Your task to perform on an android device: turn off translation in the chrome app Image 0: 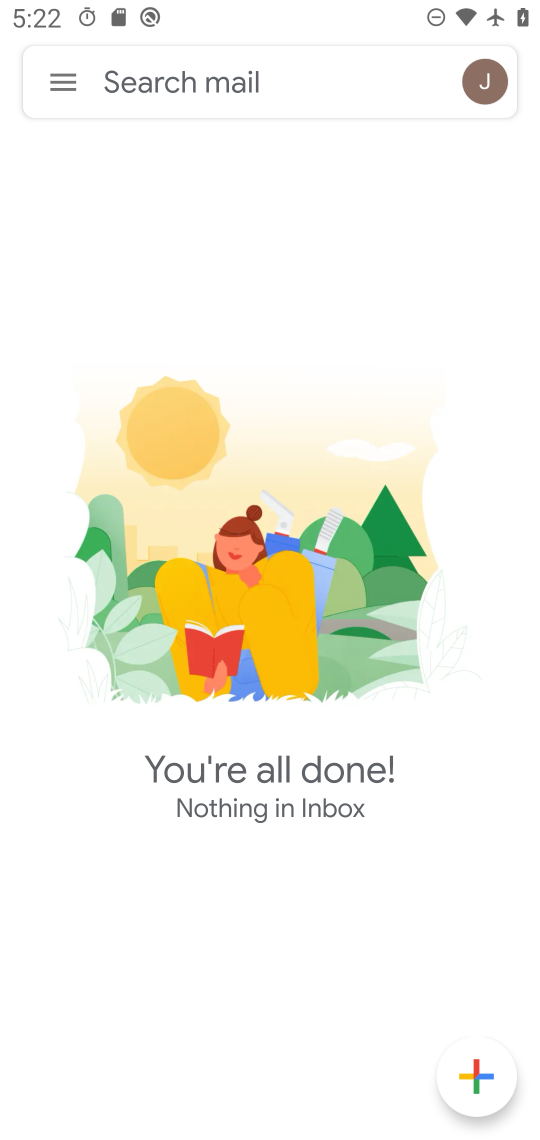
Step 0: press home button
Your task to perform on an android device: turn off translation in the chrome app Image 1: 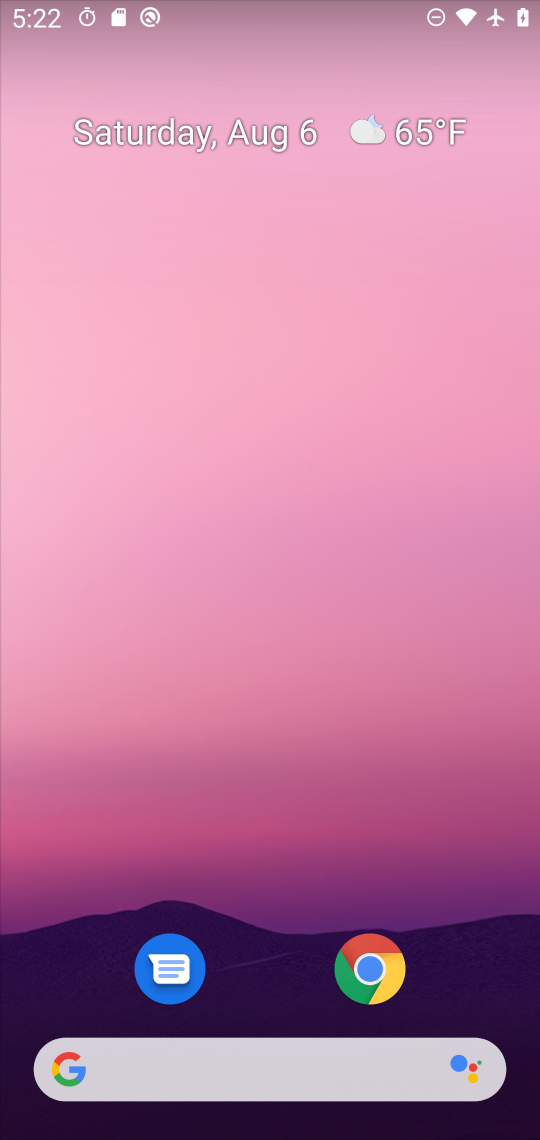
Step 1: drag from (285, 934) to (347, 67)
Your task to perform on an android device: turn off translation in the chrome app Image 2: 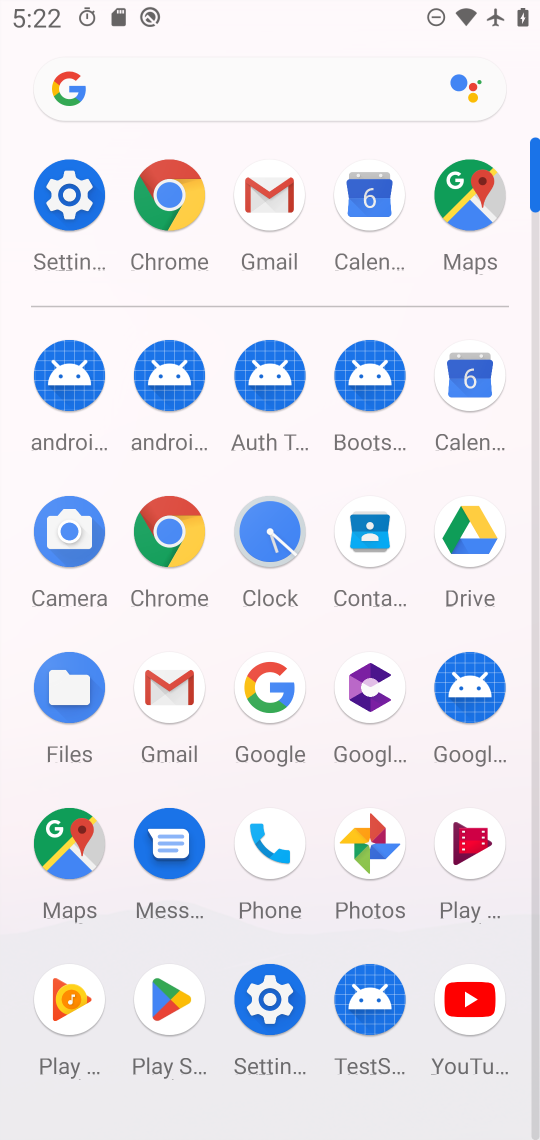
Step 2: click (163, 205)
Your task to perform on an android device: turn off translation in the chrome app Image 3: 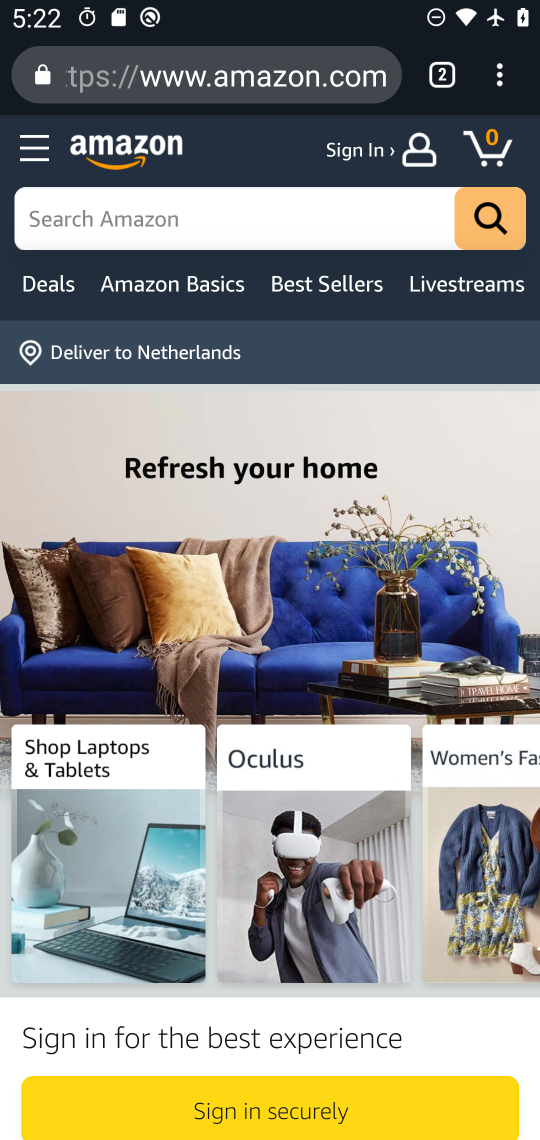
Step 3: drag from (496, 84) to (280, 981)
Your task to perform on an android device: turn off translation in the chrome app Image 4: 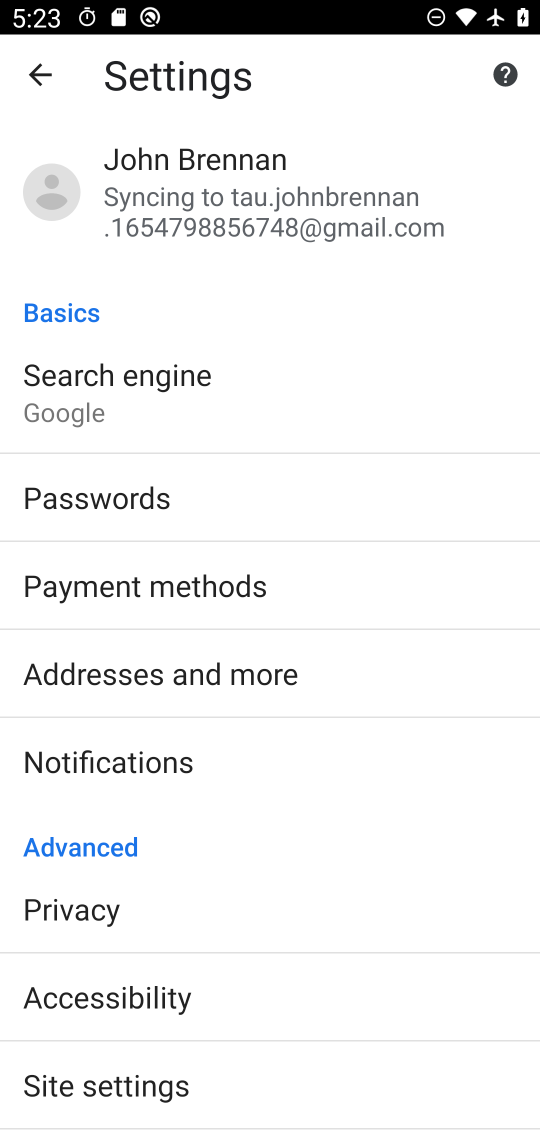
Step 4: drag from (338, 1068) to (319, 667)
Your task to perform on an android device: turn off translation in the chrome app Image 5: 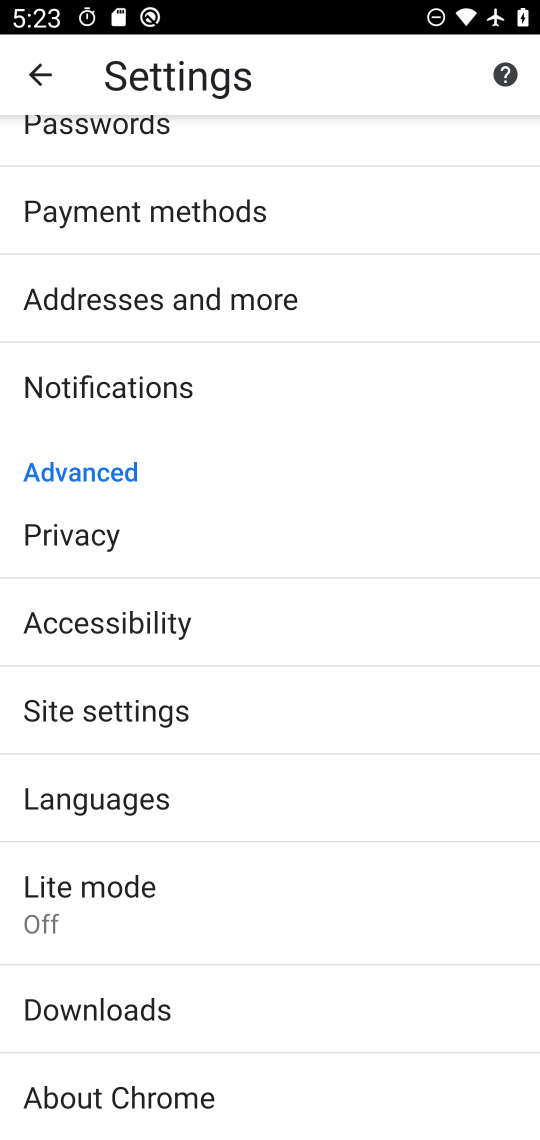
Step 5: click (96, 804)
Your task to perform on an android device: turn off translation in the chrome app Image 6: 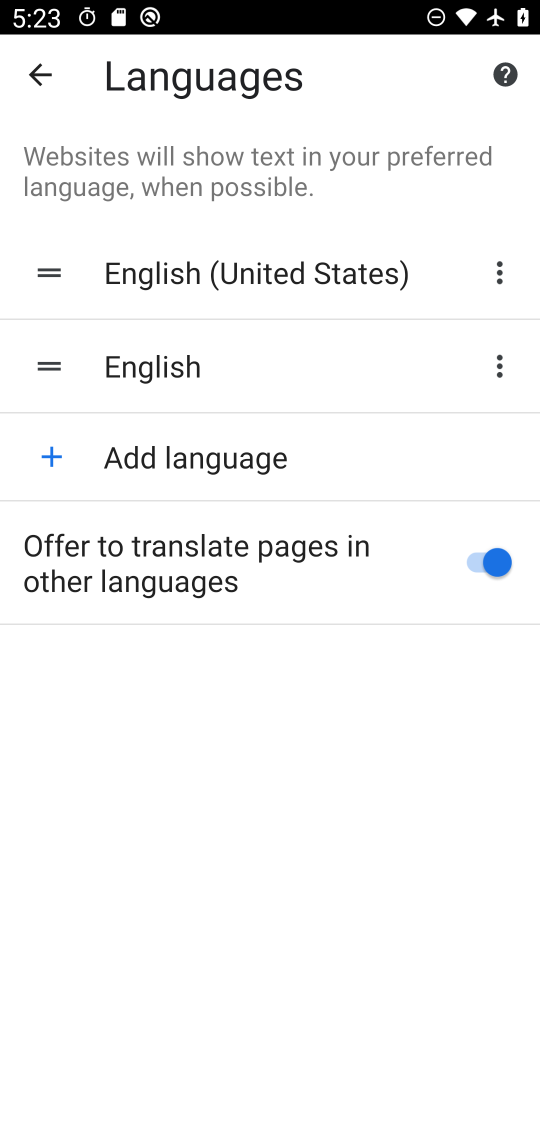
Step 6: click (488, 568)
Your task to perform on an android device: turn off translation in the chrome app Image 7: 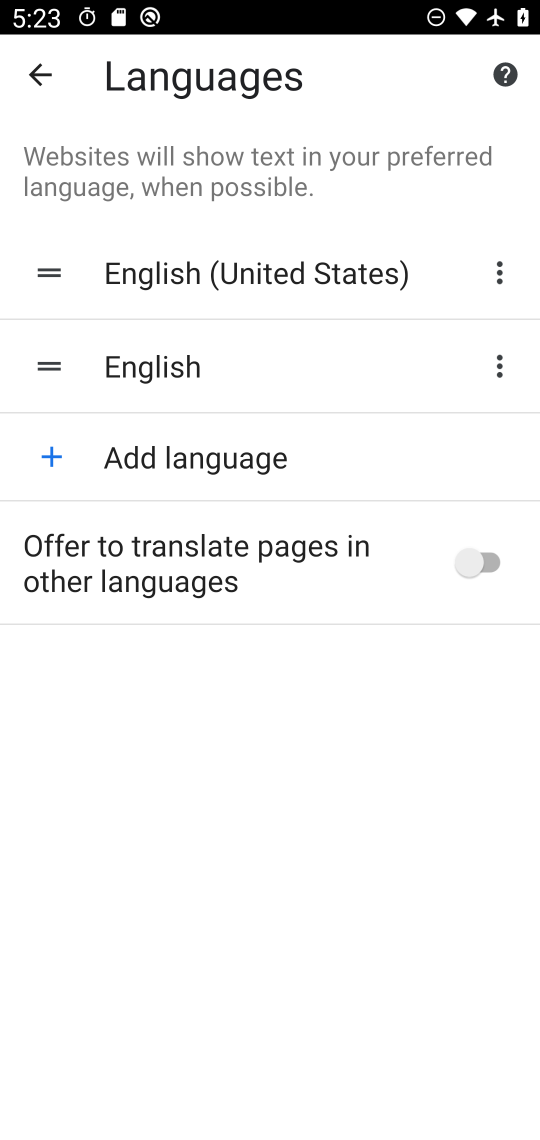
Step 7: task complete